Your task to perform on an android device: toggle priority inbox in the gmail app Image 0: 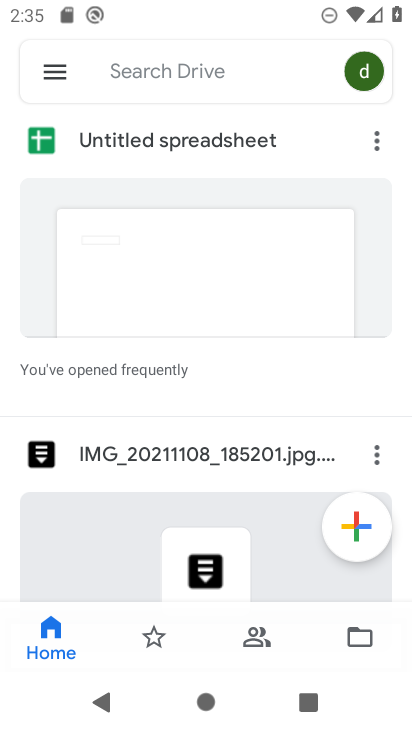
Step 0: press back button
Your task to perform on an android device: toggle priority inbox in the gmail app Image 1: 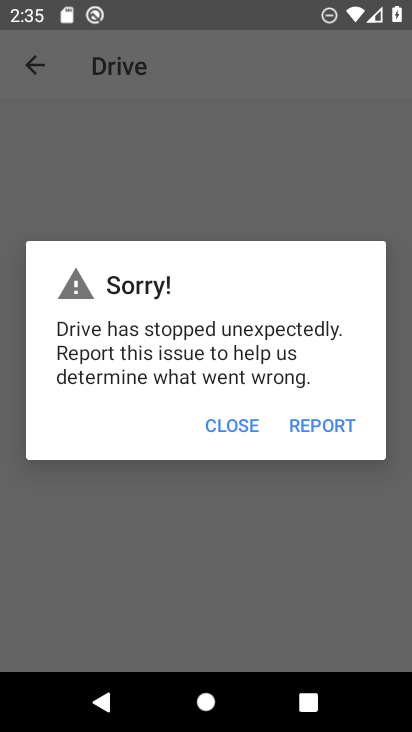
Step 1: press home button
Your task to perform on an android device: toggle priority inbox in the gmail app Image 2: 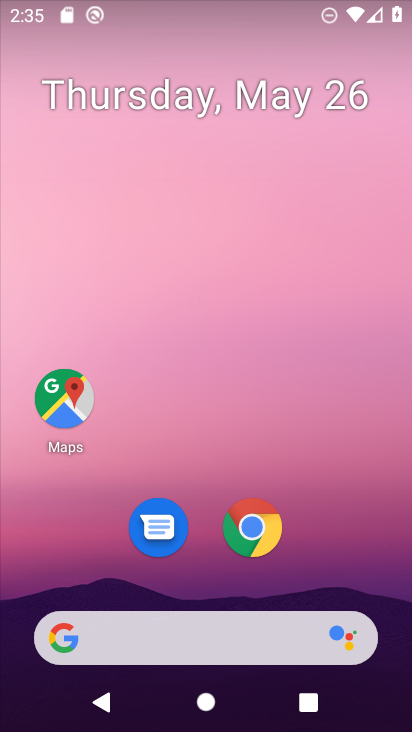
Step 2: drag from (219, 559) to (297, 4)
Your task to perform on an android device: toggle priority inbox in the gmail app Image 3: 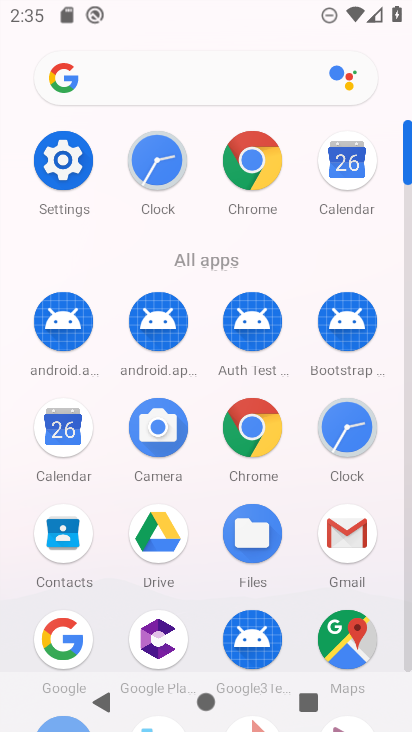
Step 3: click (351, 513)
Your task to perform on an android device: toggle priority inbox in the gmail app Image 4: 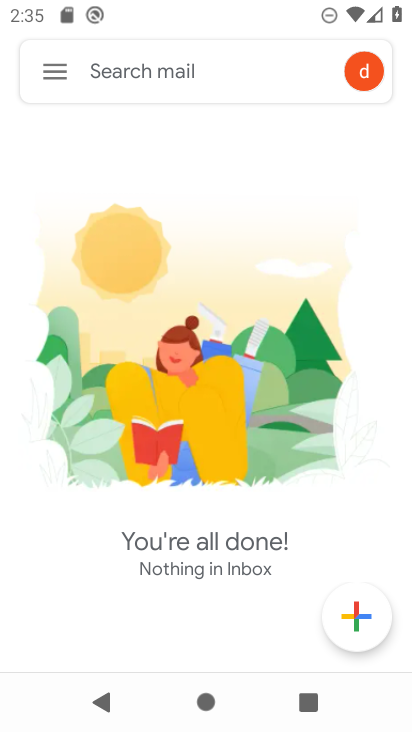
Step 4: click (59, 75)
Your task to perform on an android device: toggle priority inbox in the gmail app Image 5: 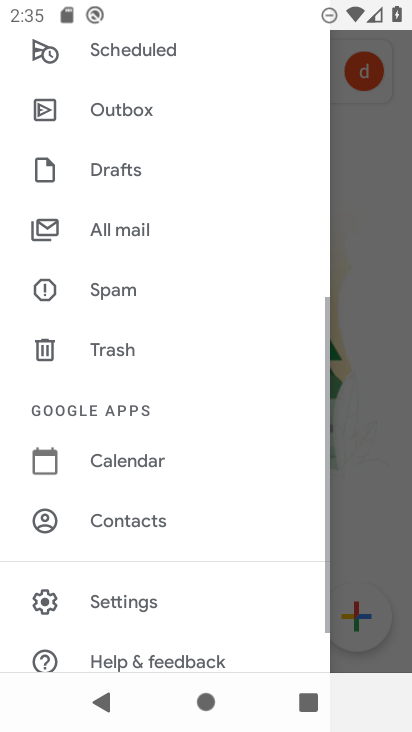
Step 5: click (134, 589)
Your task to perform on an android device: toggle priority inbox in the gmail app Image 6: 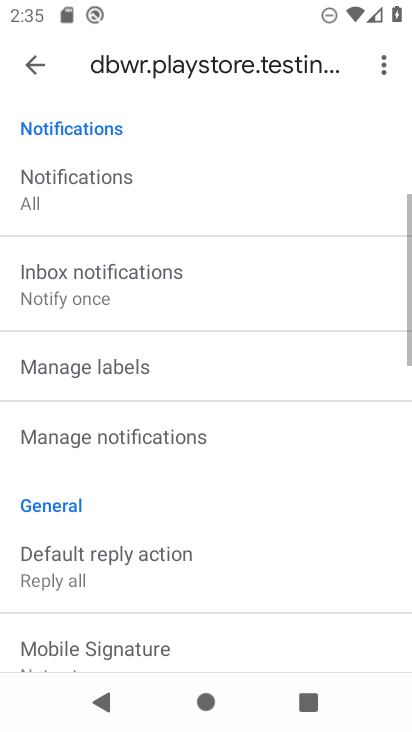
Step 6: drag from (131, 188) to (129, 723)
Your task to perform on an android device: toggle priority inbox in the gmail app Image 7: 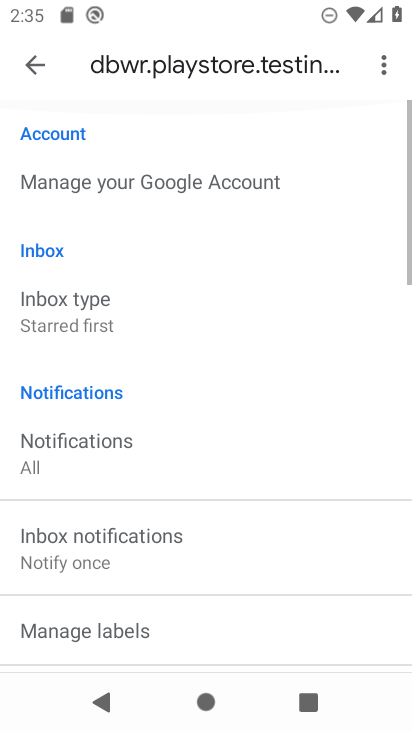
Step 7: click (49, 286)
Your task to perform on an android device: toggle priority inbox in the gmail app Image 8: 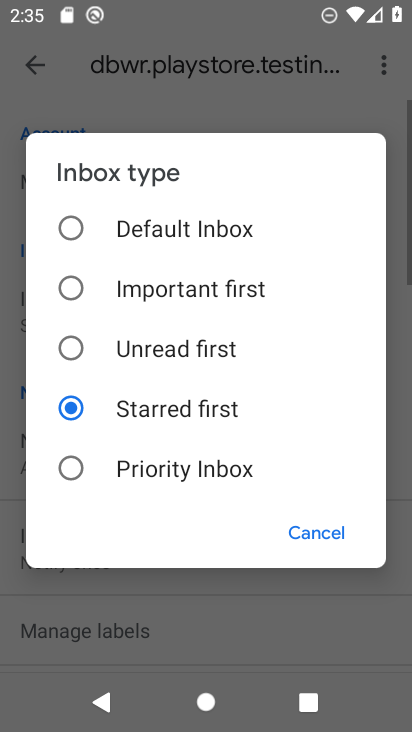
Step 8: click (82, 475)
Your task to perform on an android device: toggle priority inbox in the gmail app Image 9: 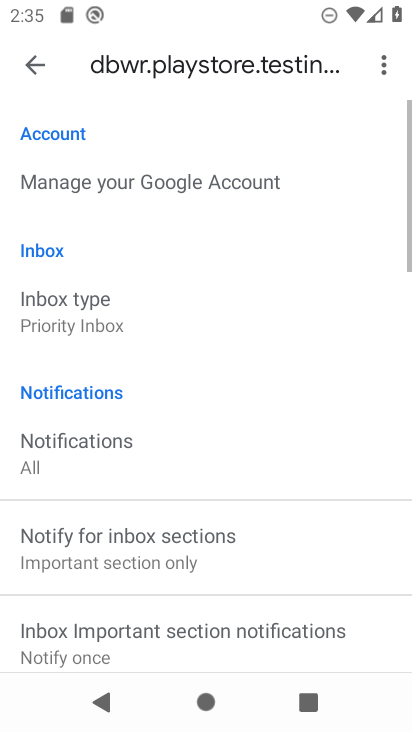
Step 9: task complete